Your task to perform on an android device: Show me the alarms in the clock app Image 0: 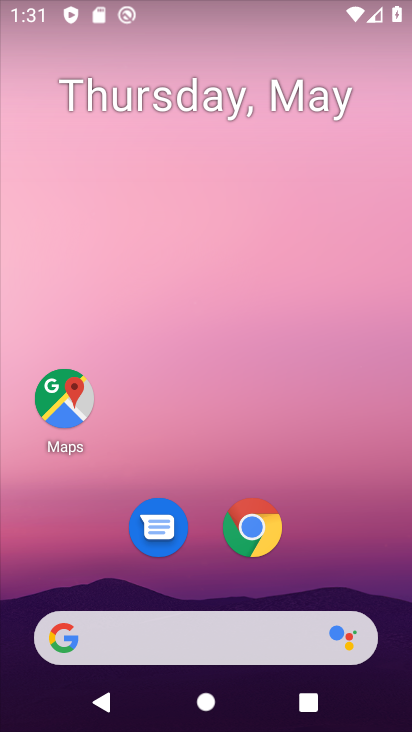
Step 0: click (191, 119)
Your task to perform on an android device: Show me the alarms in the clock app Image 1: 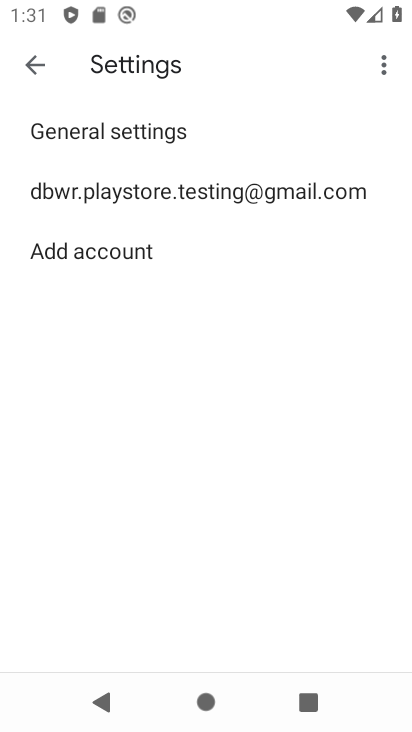
Step 1: press home button
Your task to perform on an android device: Show me the alarms in the clock app Image 2: 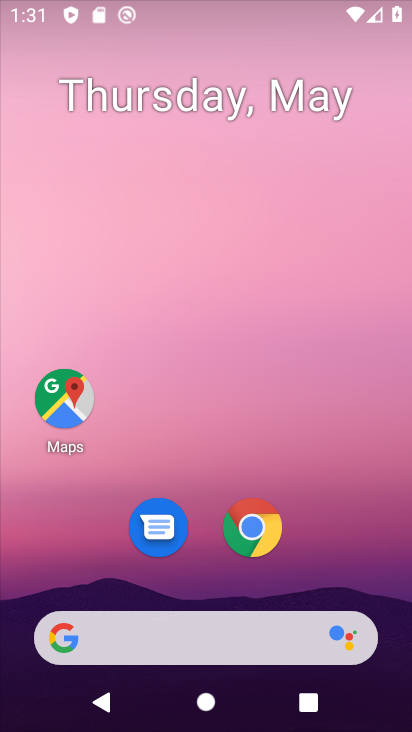
Step 2: drag from (173, 613) to (206, 58)
Your task to perform on an android device: Show me the alarms in the clock app Image 3: 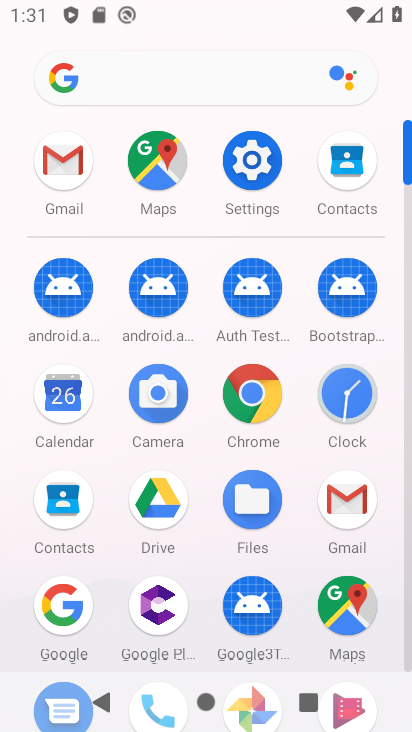
Step 3: click (347, 392)
Your task to perform on an android device: Show me the alarms in the clock app Image 4: 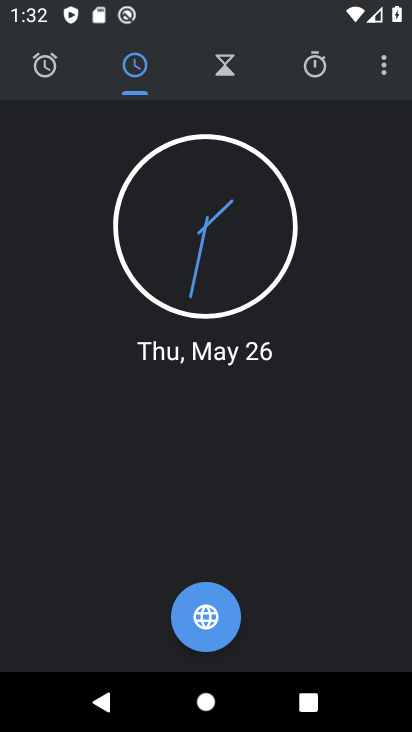
Step 4: click (50, 68)
Your task to perform on an android device: Show me the alarms in the clock app Image 5: 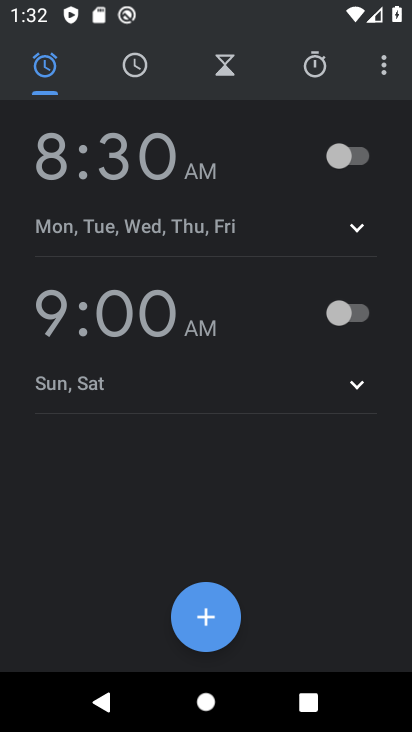
Step 5: task complete